Your task to perform on an android device: Open privacy settings Image 0: 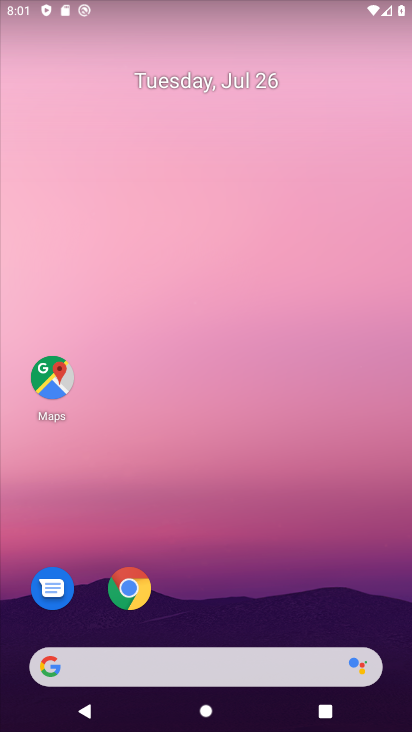
Step 0: drag from (244, 147) to (249, 108)
Your task to perform on an android device: Open privacy settings Image 1: 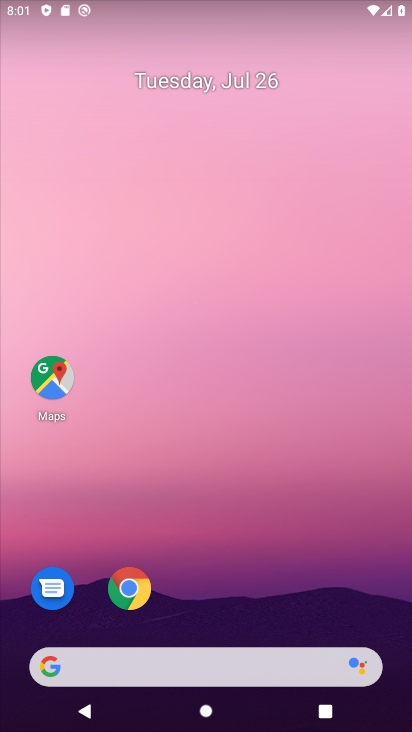
Step 1: drag from (256, 570) to (261, 156)
Your task to perform on an android device: Open privacy settings Image 2: 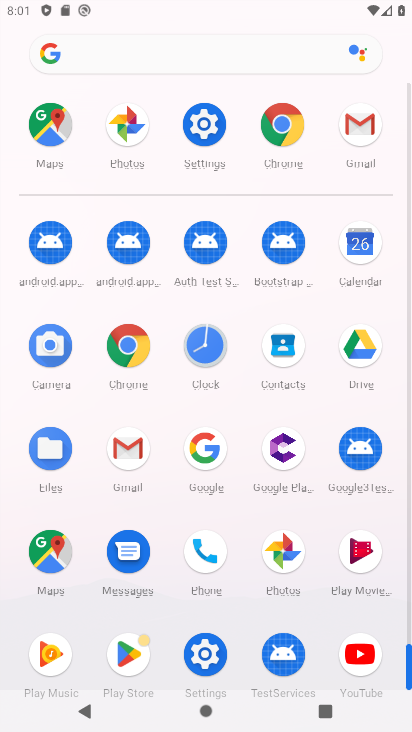
Step 2: click (205, 129)
Your task to perform on an android device: Open privacy settings Image 3: 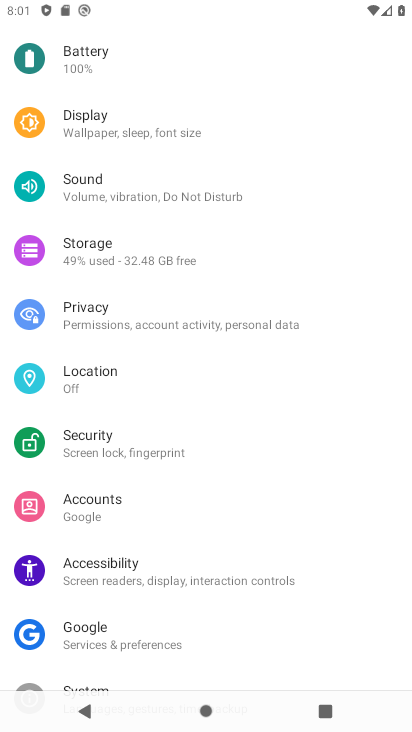
Step 3: click (132, 318)
Your task to perform on an android device: Open privacy settings Image 4: 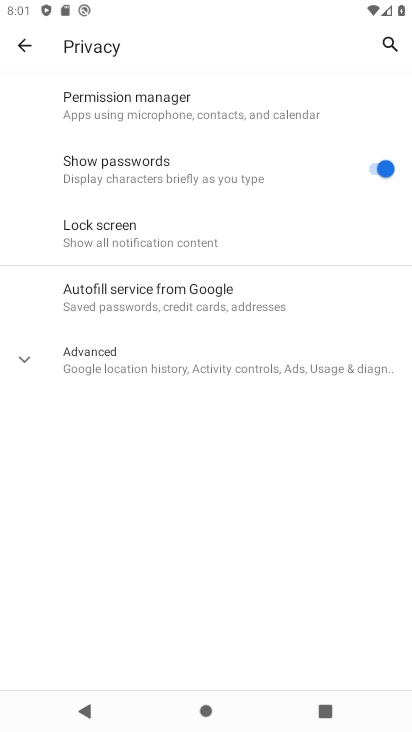
Step 4: task complete